Your task to perform on an android device: allow cookies in the chrome app Image 0: 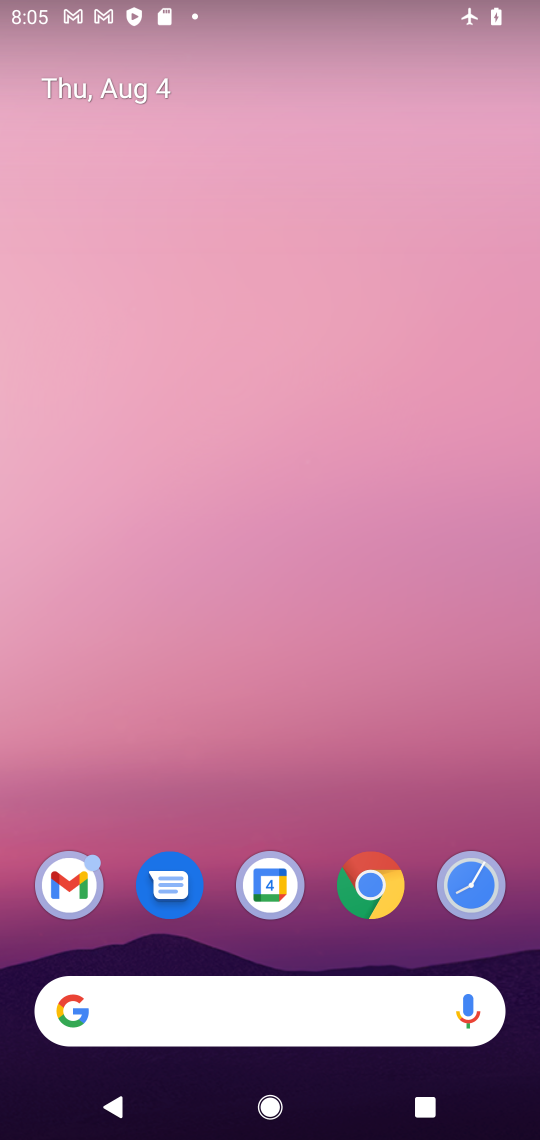
Step 0: press home button
Your task to perform on an android device: allow cookies in the chrome app Image 1: 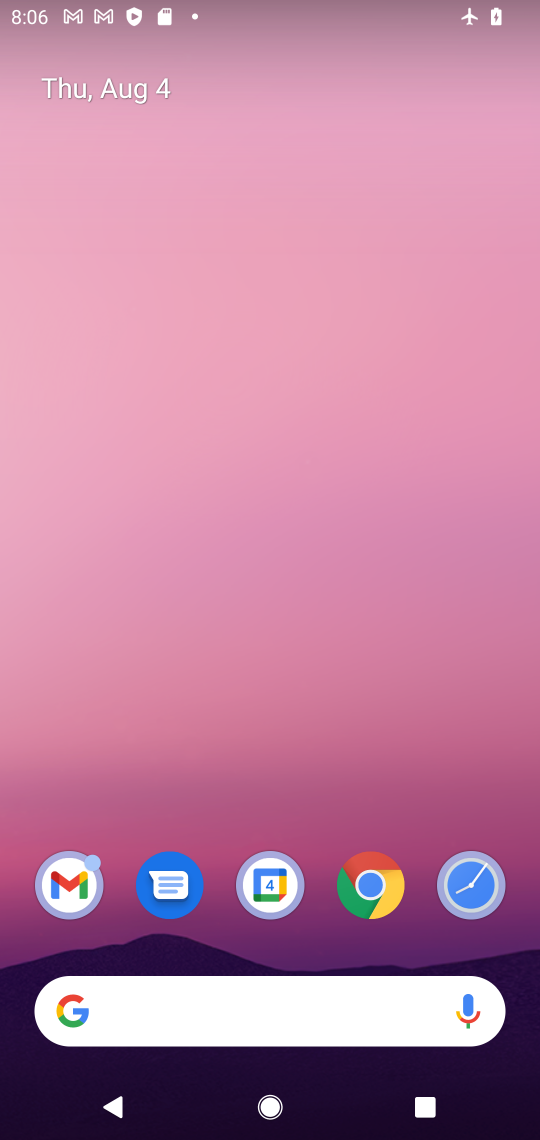
Step 1: drag from (245, 815) to (105, 49)
Your task to perform on an android device: allow cookies in the chrome app Image 2: 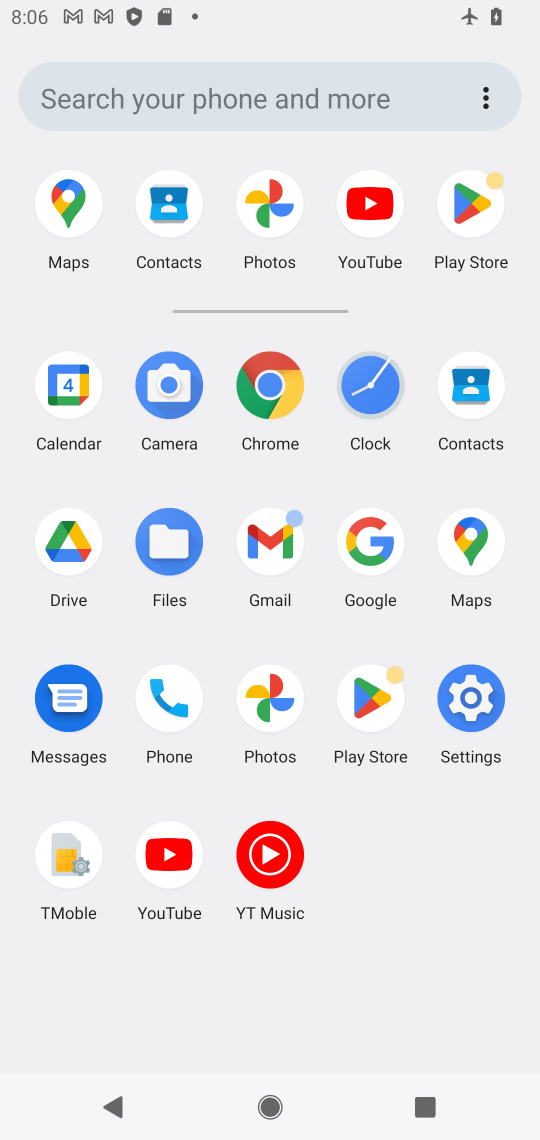
Step 2: click (275, 381)
Your task to perform on an android device: allow cookies in the chrome app Image 3: 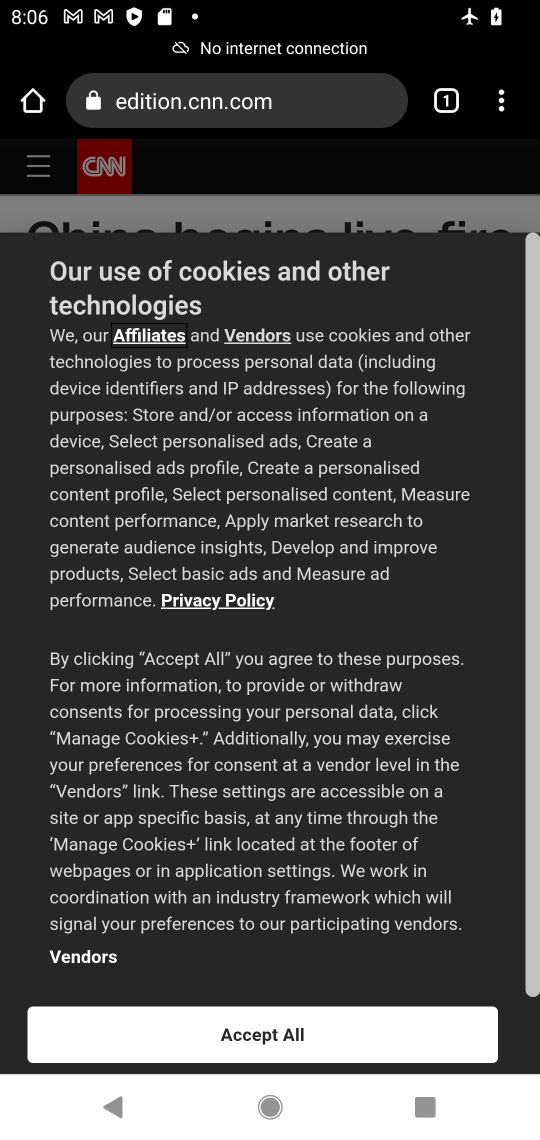
Step 3: drag from (509, 106) to (239, 957)
Your task to perform on an android device: allow cookies in the chrome app Image 4: 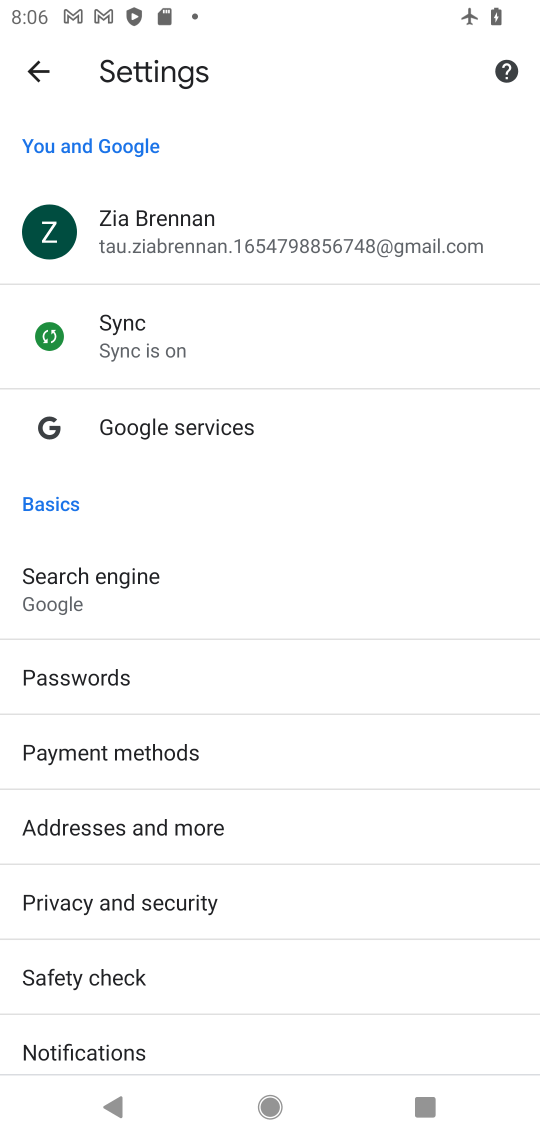
Step 4: drag from (197, 900) to (166, 19)
Your task to perform on an android device: allow cookies in the chrome app Image 5: 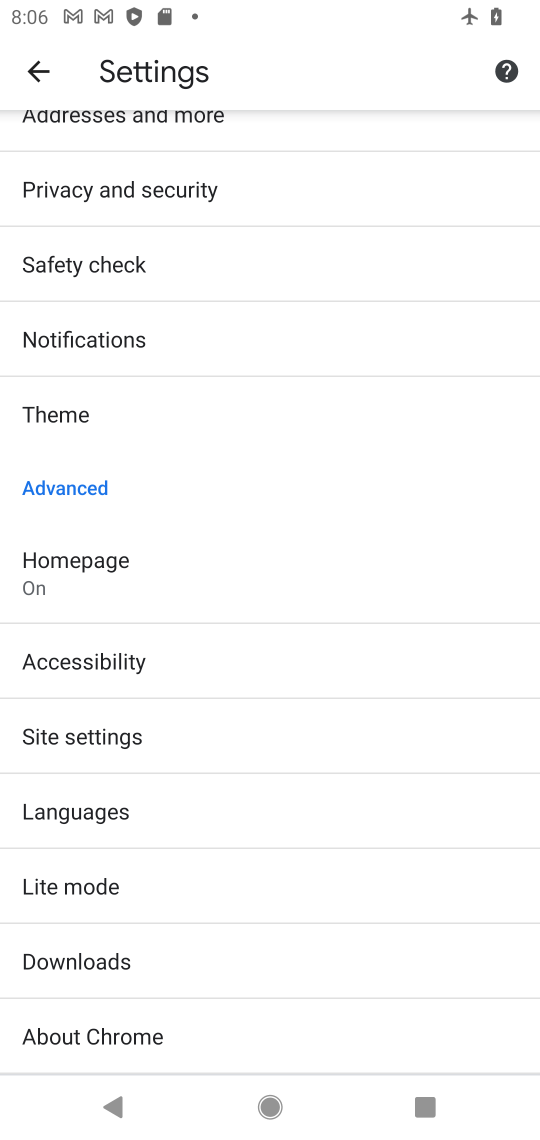
Step 5: click (112, 728)
Your task to perform on an android device: allow cookies in the chrome app Image 6: 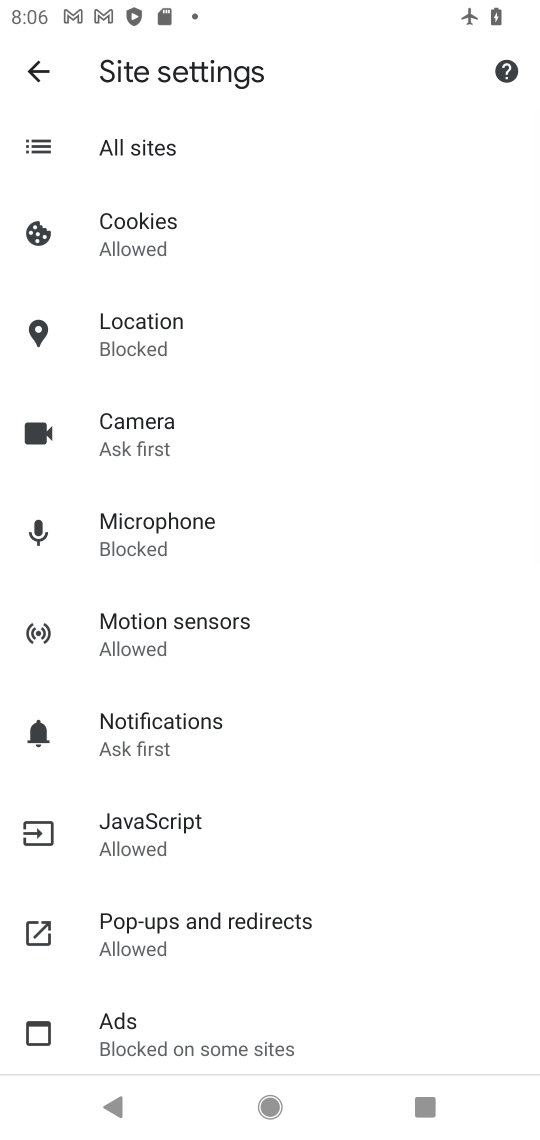
Step 6: click (100, 229)
Your task to perform on an android device: allow cookies in the chrome app Image 7: 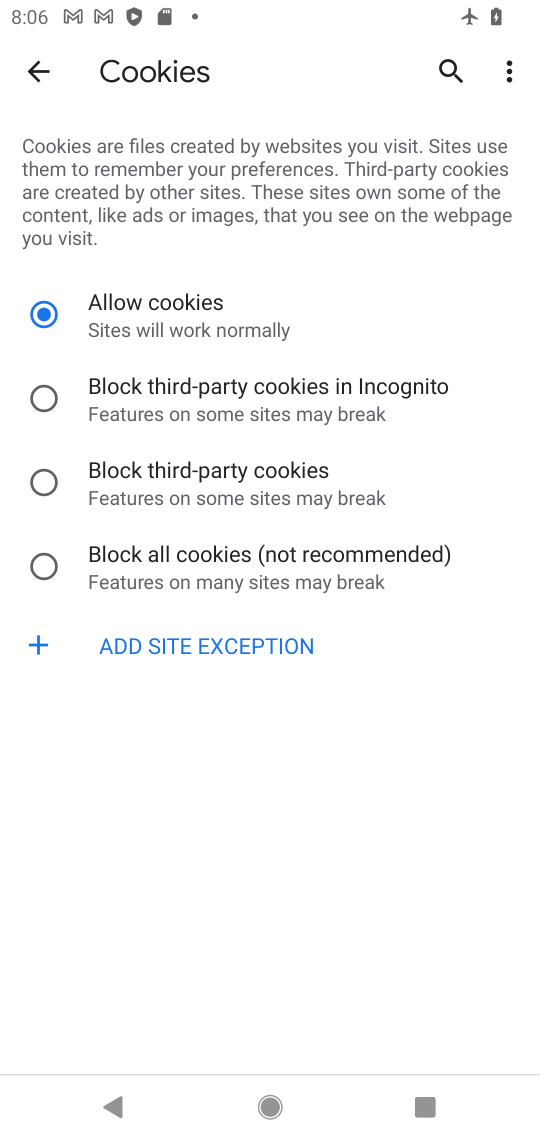
Step 7: click (141, 323)
Your task to perform on an android device: allow cookies in the chrome app Image 8: 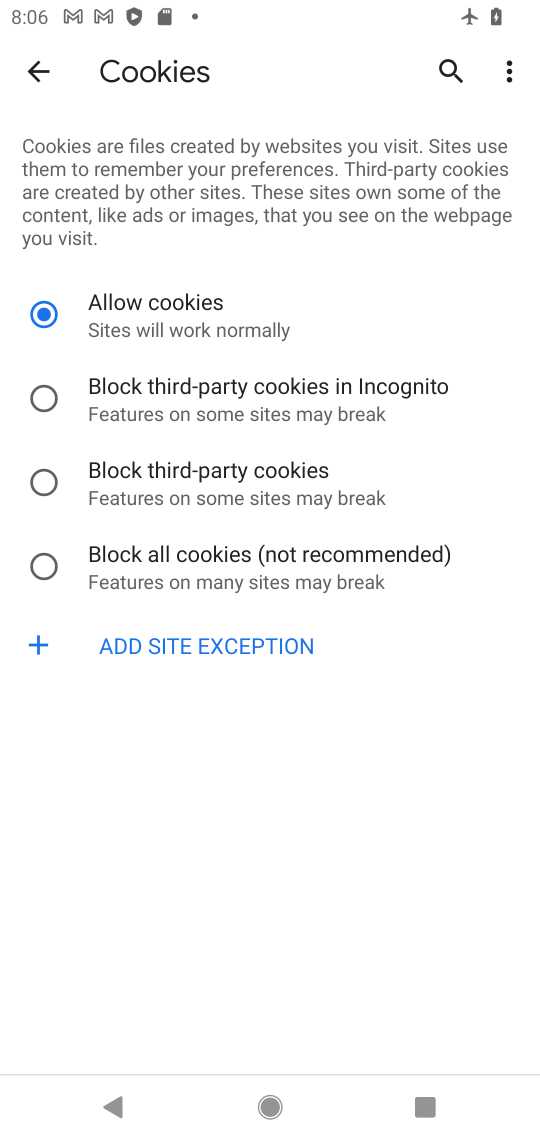
Step 8: task complete